Your task to perform on an android device: turn on showing notifications on the lock screen Image 0: 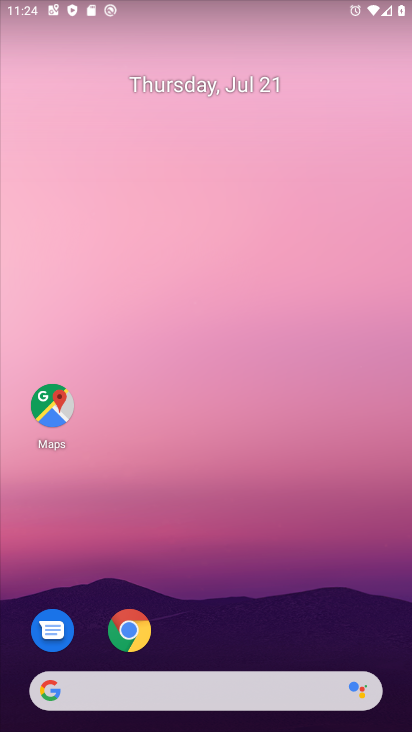
Step 0: drag from (243, 670) to (240, 124)
Your task to perform on an android device: turn on showing notifications on the lock screen Image 1: 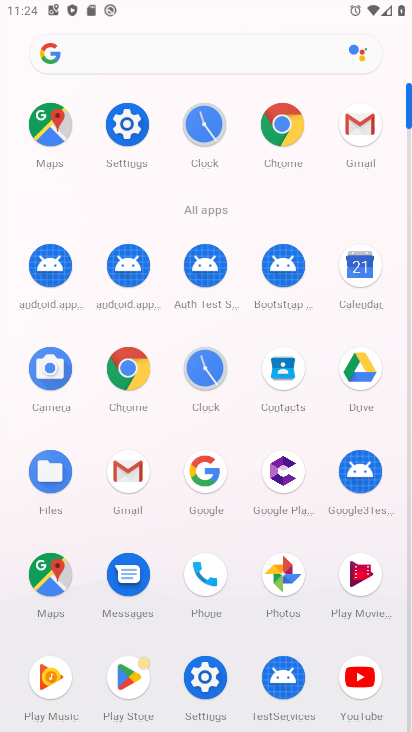
Step 1: click (207, 687)
Your task to perform on an android device: turn on showing notifications on the lock screen Image 2: 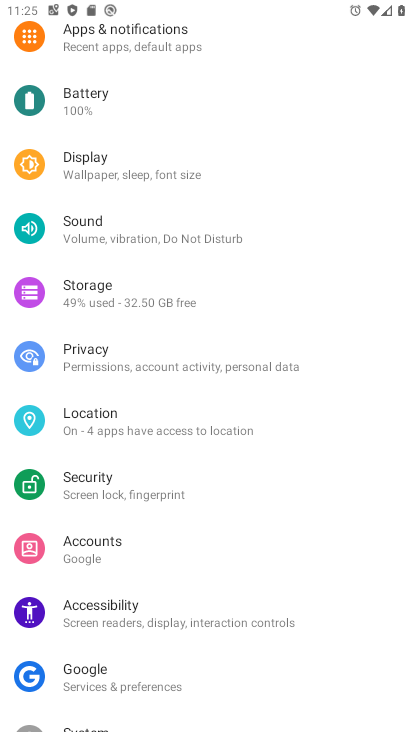
Step 2: click (152, 35)
Your task to perform on an android device: turn on showing notifications on the lock screen Image 3: 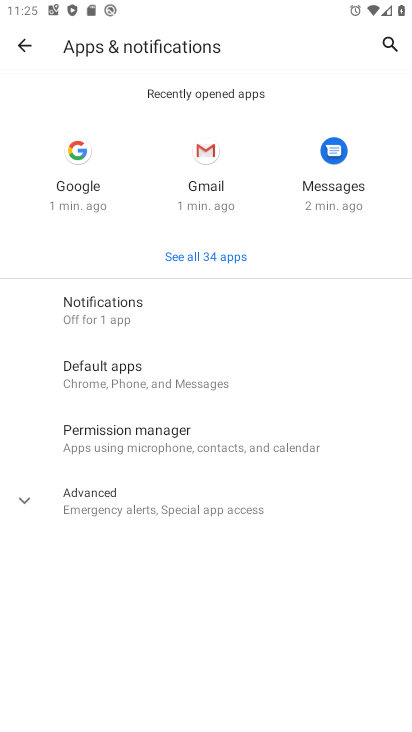
Step 3: click (141, 508)
Your task to perform on an android device: turn on showing notifications on the lock screen Image 4: 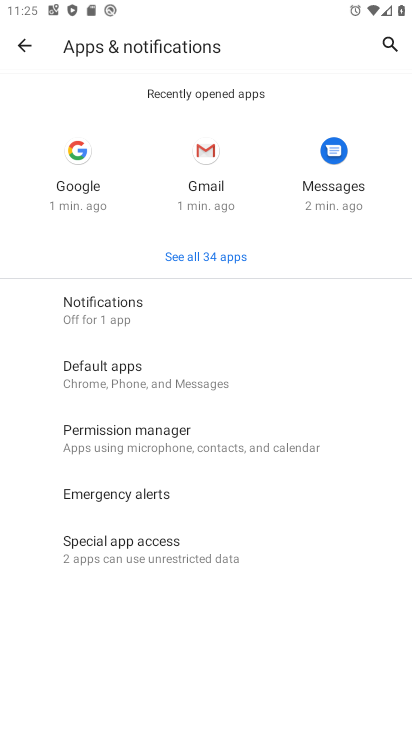
Step 4: click (110, 326)
Your task to perform on an android device: turn on showing notifications on the lock screen Image 5: 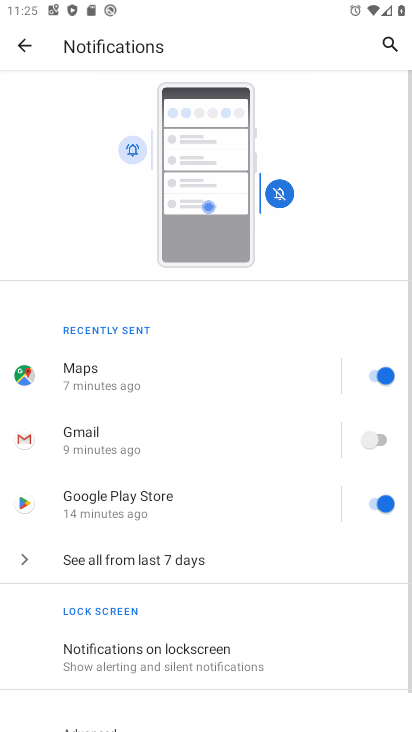
Step 5: click (191, 662)
Your task to perform on an android device: turn on showing notifications on the lock screen Image 6: 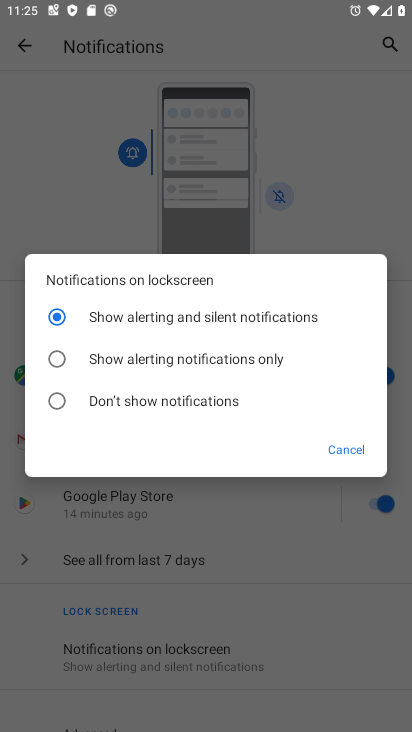
Step 6: click (147, 328)
Your task to perform on an android device: turn on showing notifications on the lock screen Image 7: 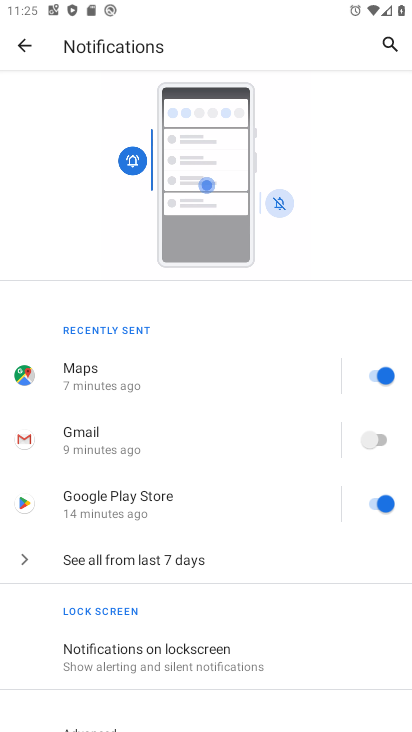
Step 7: task complete